Your task to perform on an android device: check google app version Image 0: 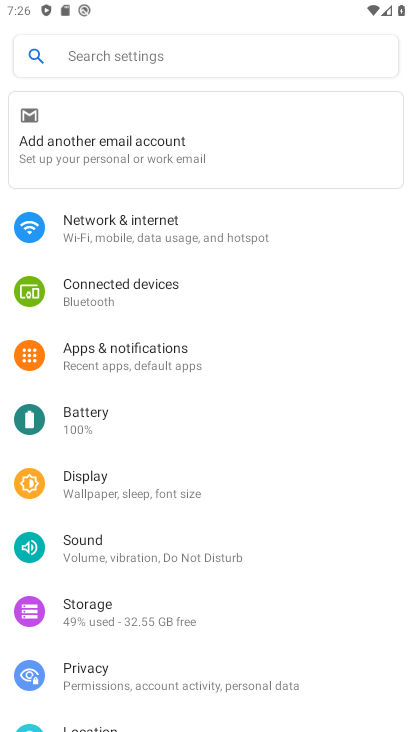
Step 0: press home button
Your task to perform on an android device: check google app version Image 1: 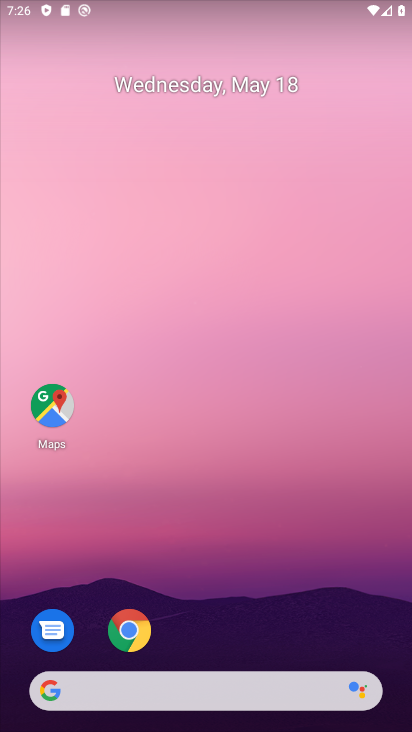
Step 1: click (46, 693)
Your task to perform on an android device: check google app version Image 2: 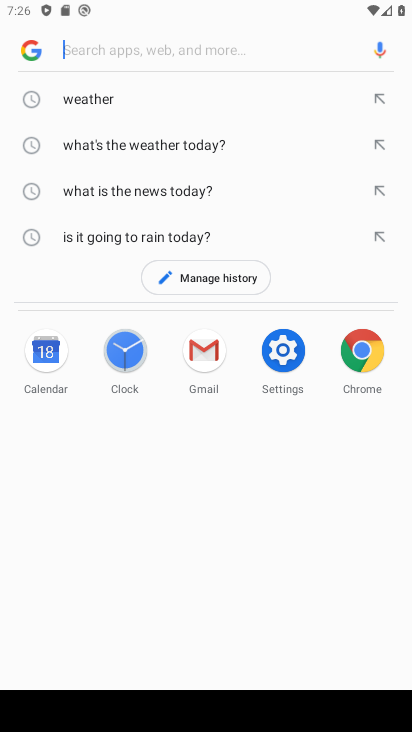
Step 2: click (32, 45)
Your task to perform on an android device: check google app version Image 3: 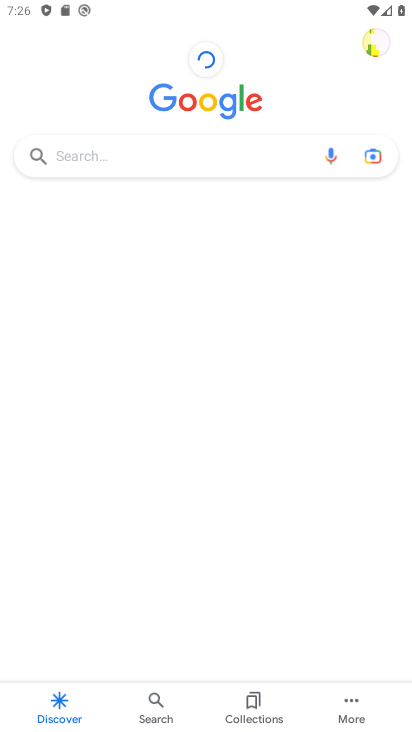
Step 3: click (342, 698)
Your task to perform on an android device: check google app version Image 4: 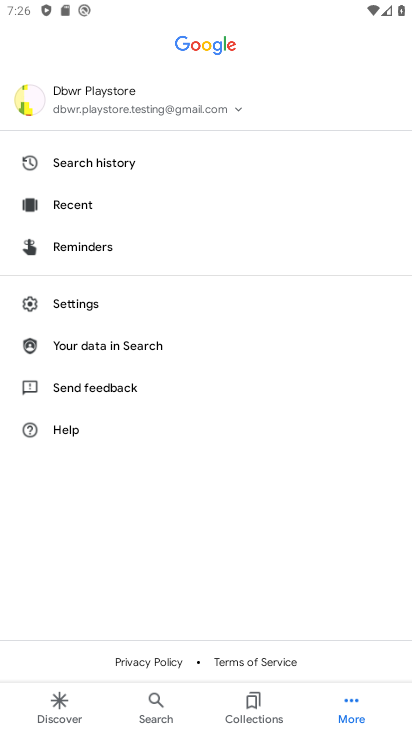
Step 4: click (65, 299)
Your task to perform on an android device: check google app version Image 5: 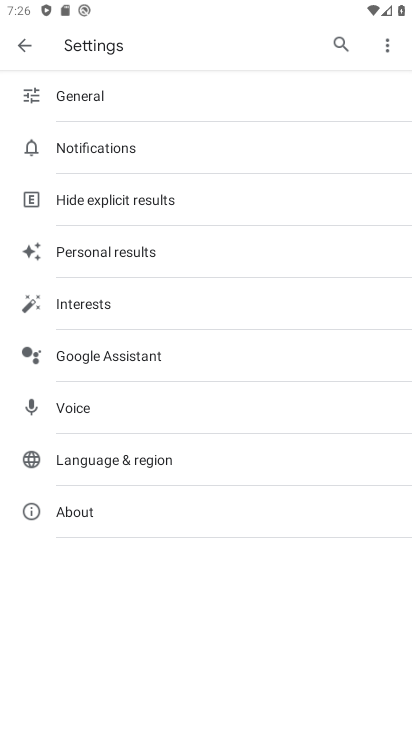
Step 5: click (73, 509)
Your task to perform on an android device: check google app version Image 6: 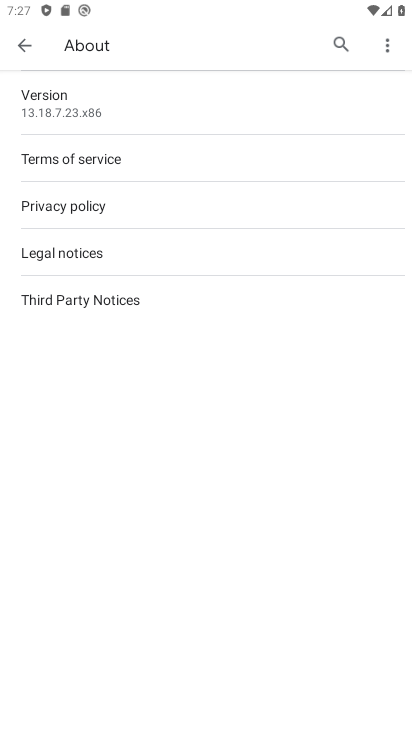
Step 6: task complete